Your task to perform on an android device: Open Maps and search for coffee Image 0: 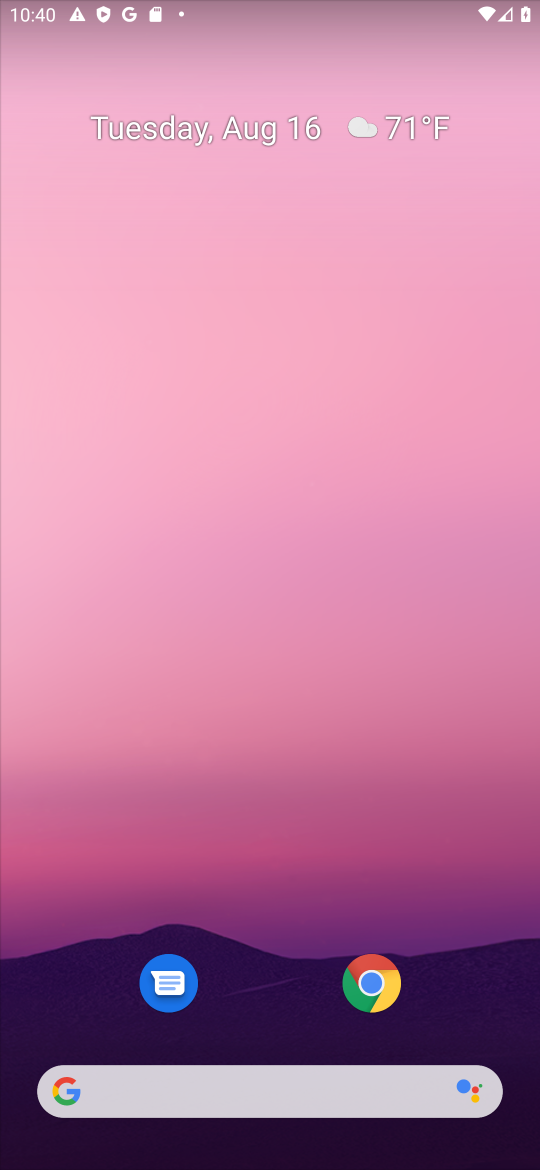
Step 0: drag from (242, 877) to (185, 20)
Your task to perform on an android device: Open Maps and search for coffee Image 1: 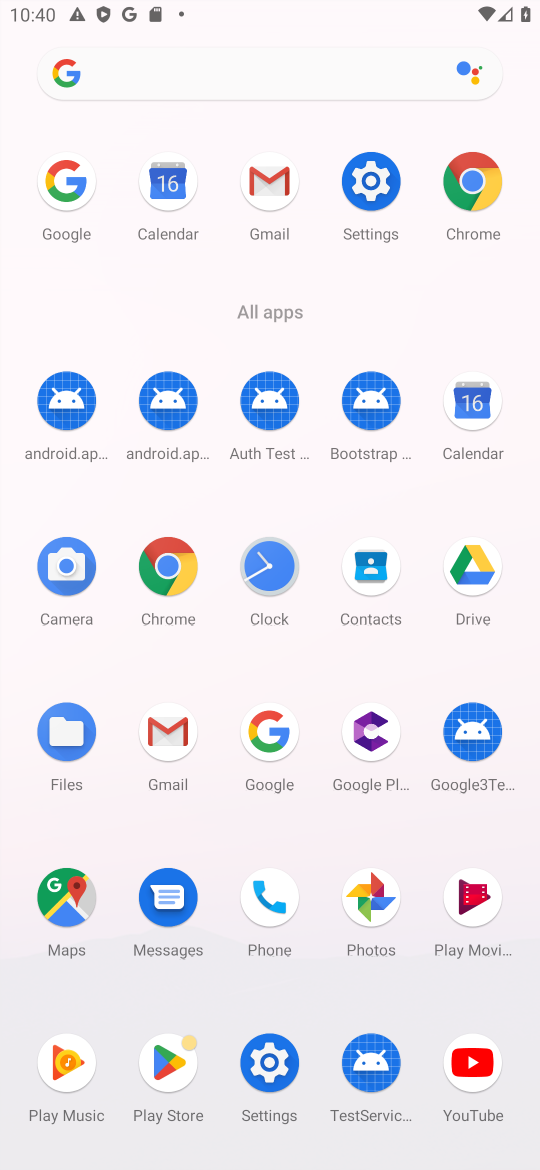
Step 1: click (89, 881)
Your task to perform on an android device: Open Maps and search for coffee Image 2: 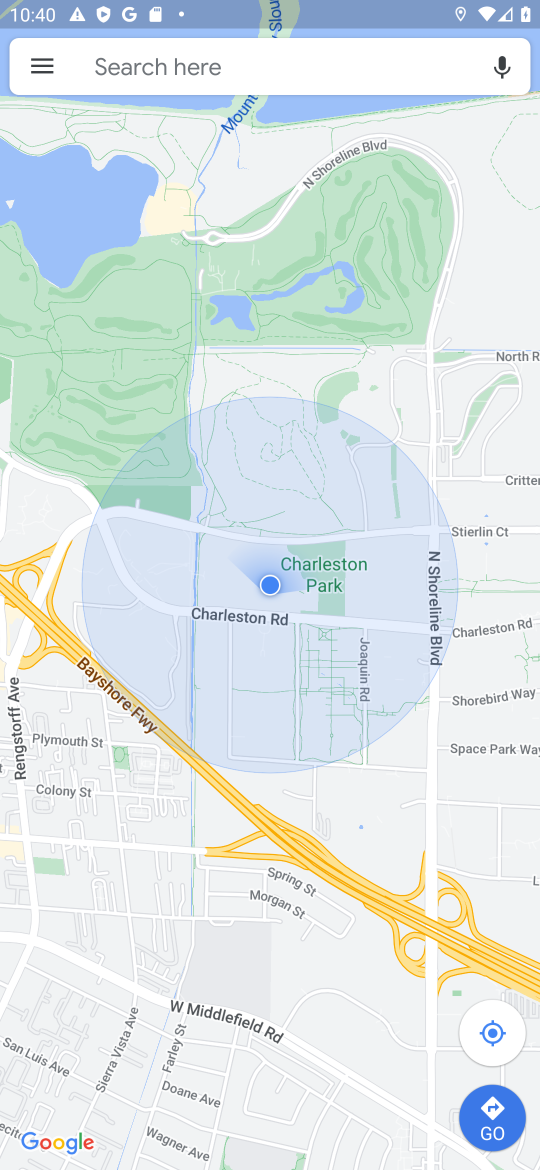
Step 2: click (214, 84)
Your task to perform on an android device: Open Maps and search for coffee Image 3: 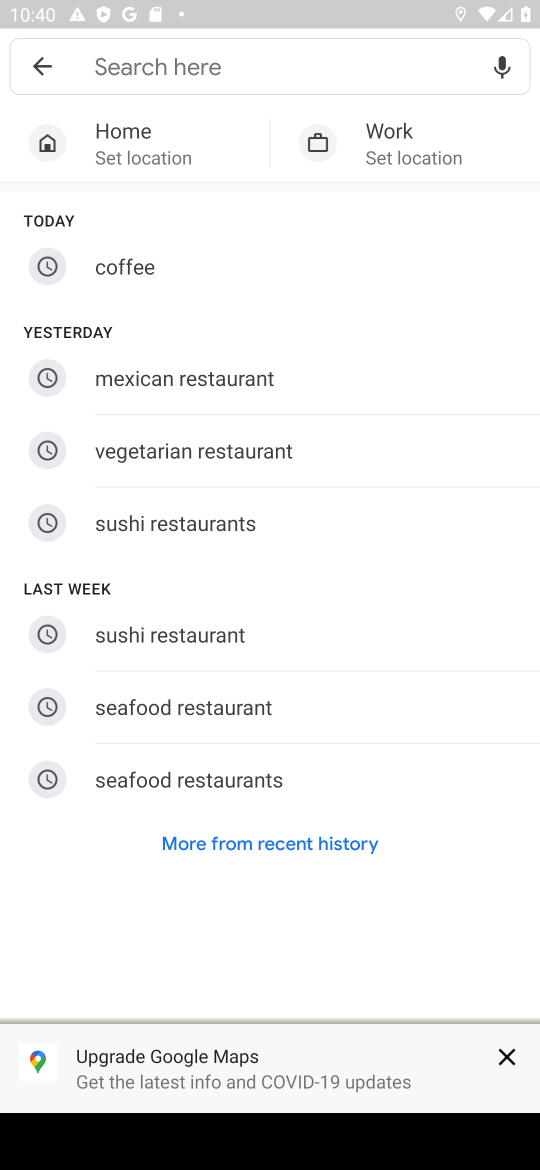
Step 3: click (119, 278)
Your task to perform on an android device: Open Maps and search for coffee Image 4: 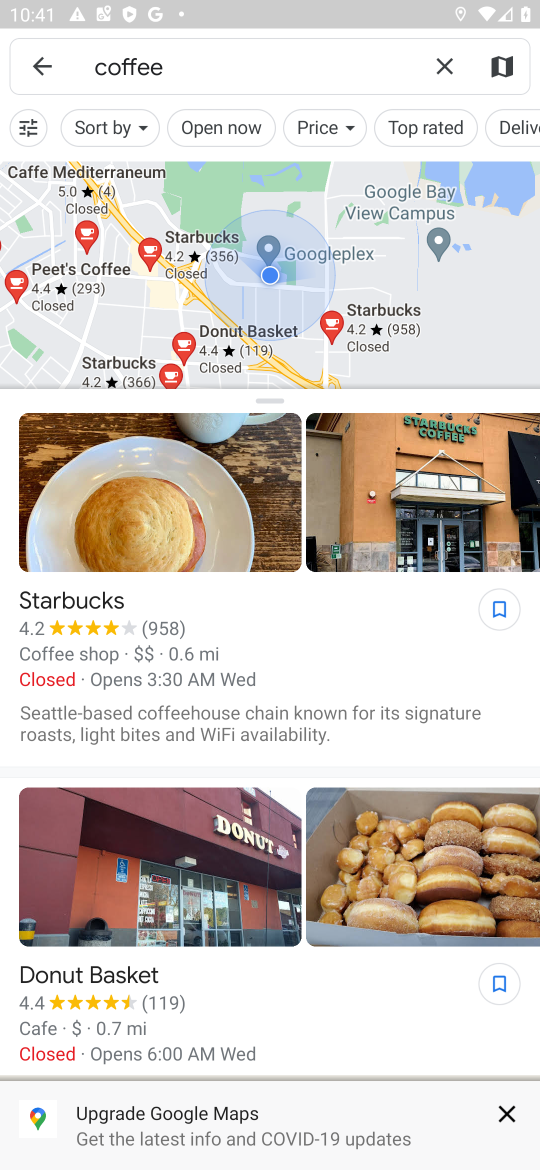
Step 4: task complete